Your task to perform on an android device: Open Wikipedia Image 0: 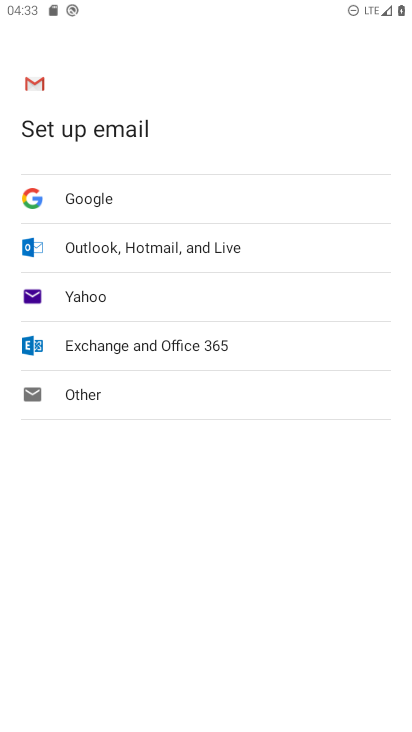
Step 0: press home button
Your task to perform on an android device: Open Wikipedia Image 1: 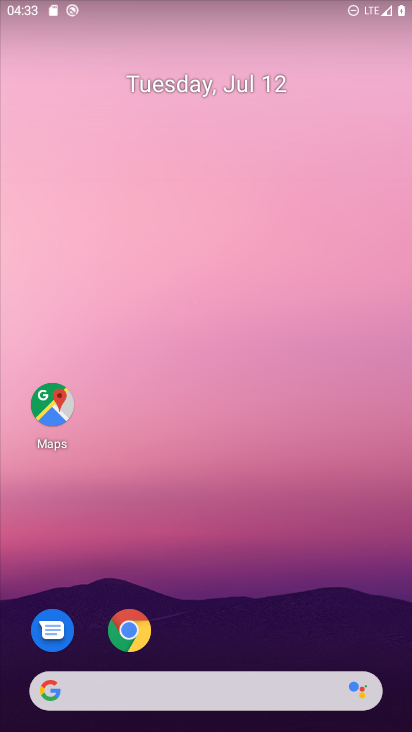
Step 1: drag from (290, 683) to (323, 82)
Your task to perform on an android device: Open Wikipedia Image 2: 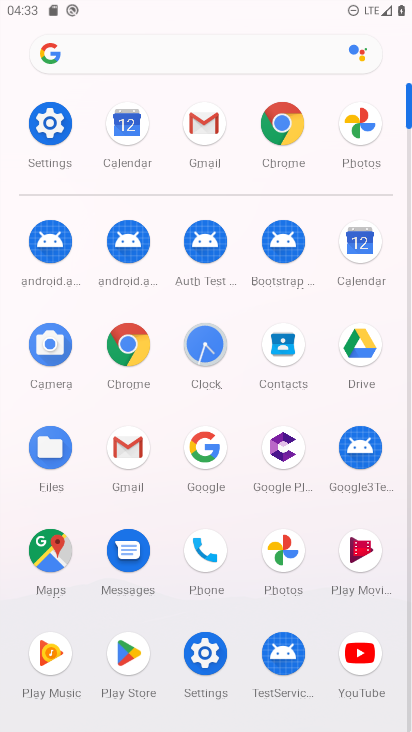
Step 2: click (133, 343)
Your task to perform on an android device: Open Wikipedia Image 3: 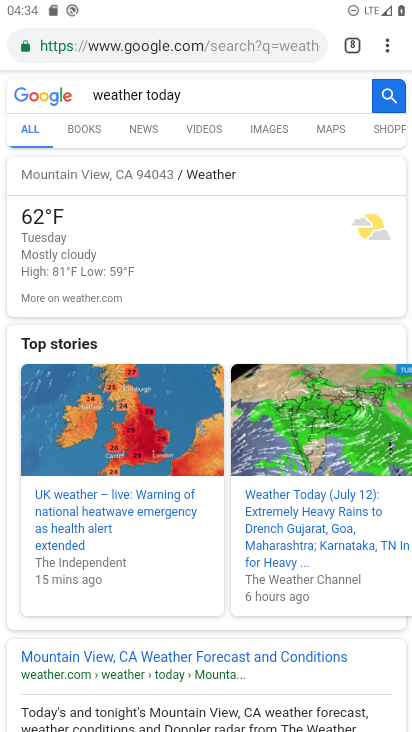
Step 3: click (166, 43)
Your task to perform on an android device: Open Wikipedia Image 4: 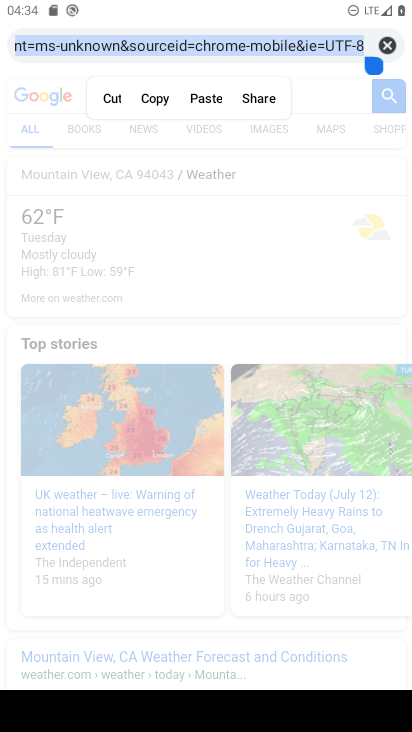
Step 4: type "wikipedia"
Your task to perform on an android device: Open Wikipedia Image 5: 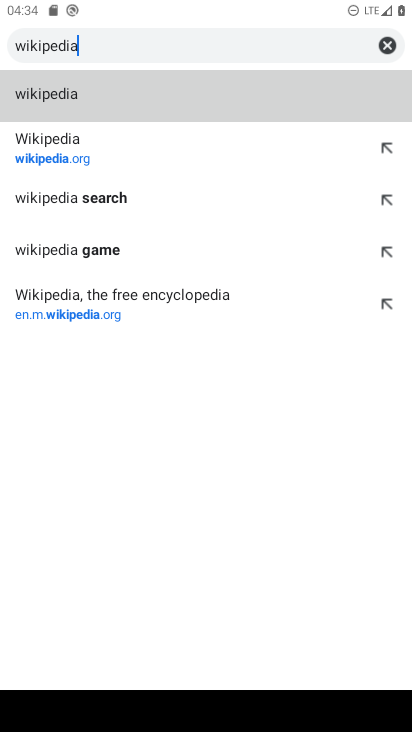
Step 5: click (226, 96)
Your task to perform on an android device: Open Wikipedia Image 6: 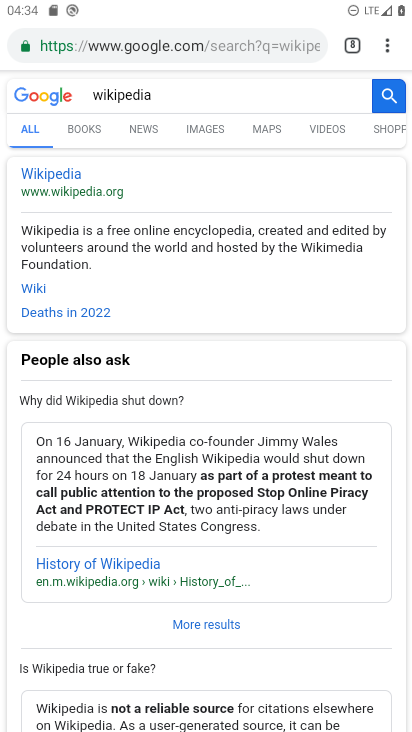
Step 6: task complete